Your task to perform on an android device: Open accessibility settings Image 0: 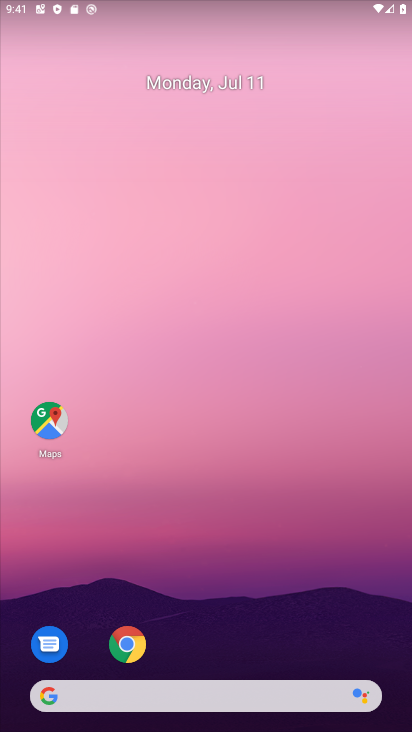
Step 0: press home button
Your task to perform on an android device: Open accessibility settings Image 1: 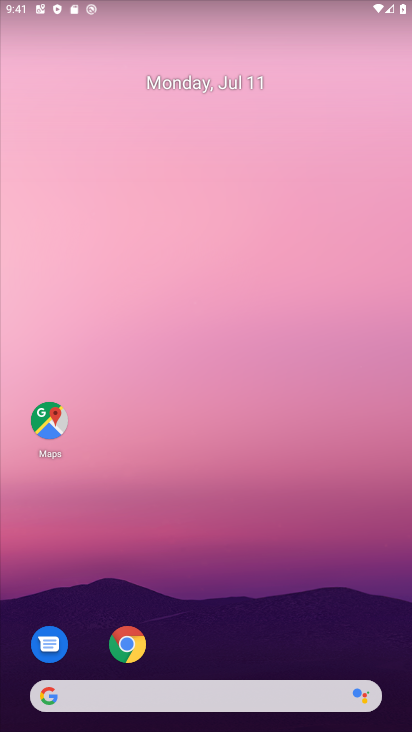
Step 1: drag from (211, 654) to (197, 260)
Your task to perform on an android device: Open accessibility settings Image 2: 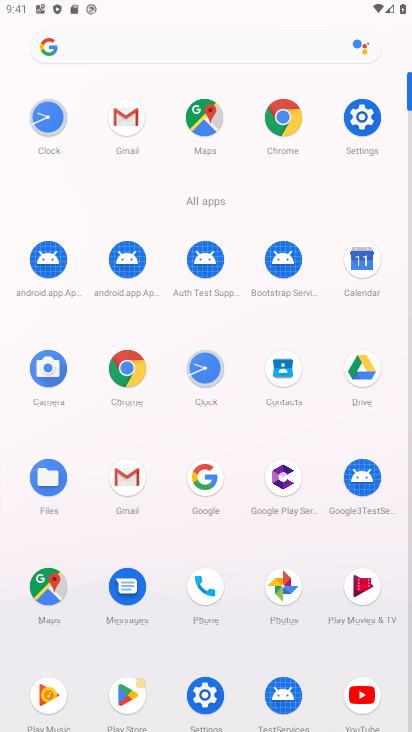
Step 2: click (362, 118)
Your task to perform on an android device: Open accessibility settings Image 3: 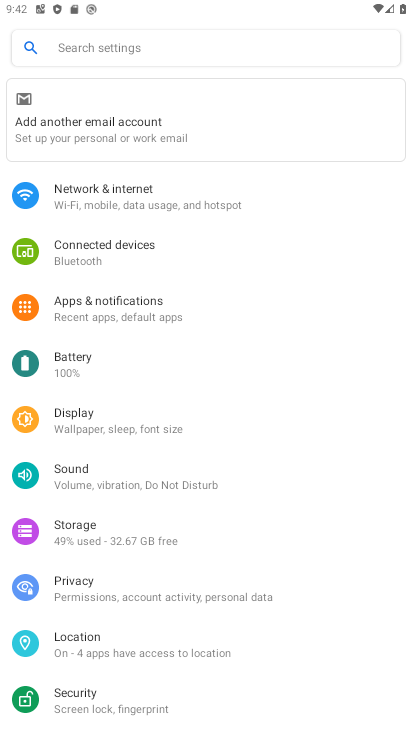
Step 3: drag from (188, 668) to (191, 280)
Your task to perform on an android device: Open accessibility settings Image 4: 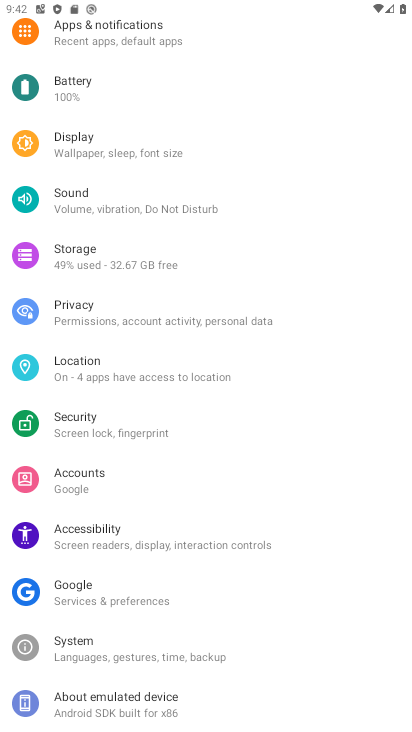
Step 4: click (127, 526)
Your task to perform on an android device: Open accessibility settings Image 5: 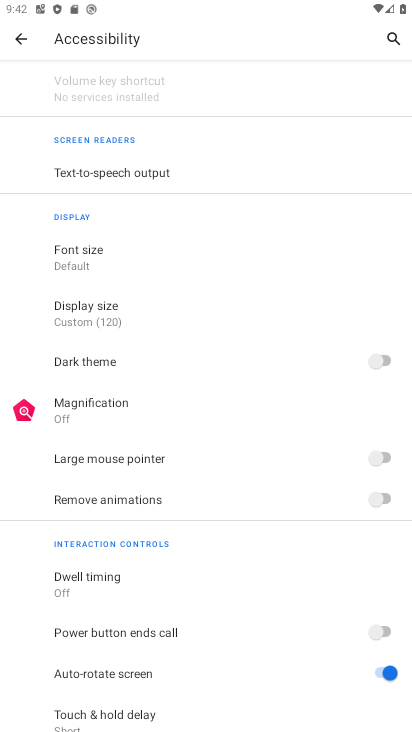
Step 5: task complete